Your task to perform on an android device: What is the recent news? Image 0: 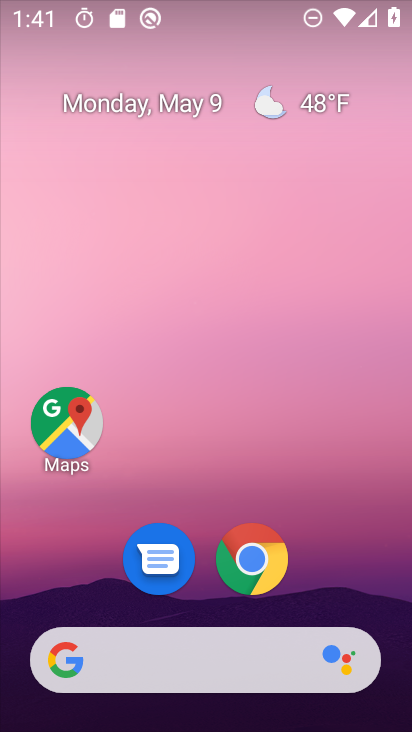
Step 0: click (404, 423)
Your task to perform on an android device: What is the recent news? Image 1: 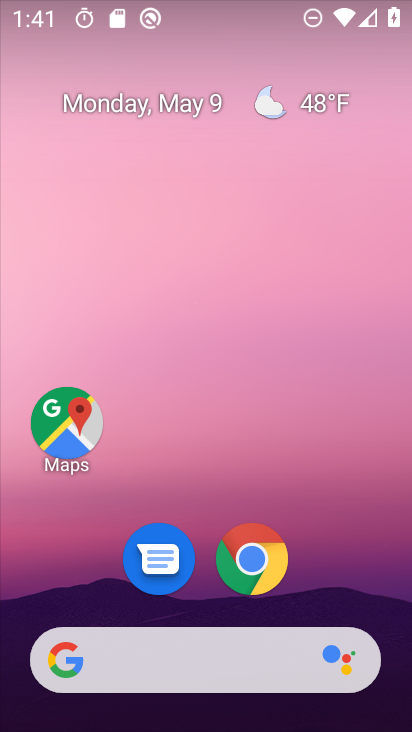
Step 1: drag from (197, 597) to (277, 135)
Your task to perform on an android device: What is the recent news? Image 2: 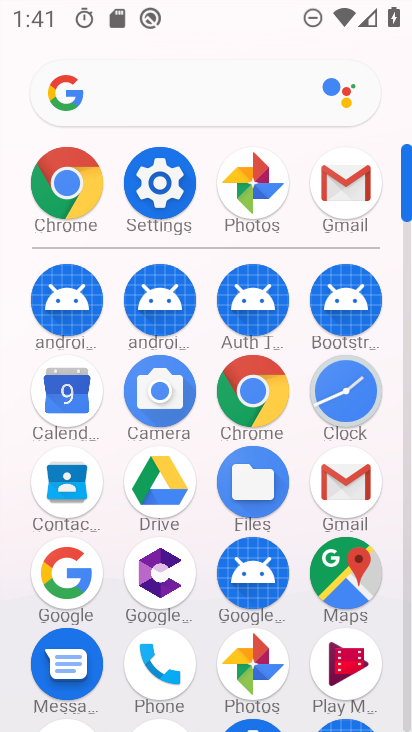
Step 2: click (196, 99)
Your task to perform on an android device: What is the recent news? Image 3: 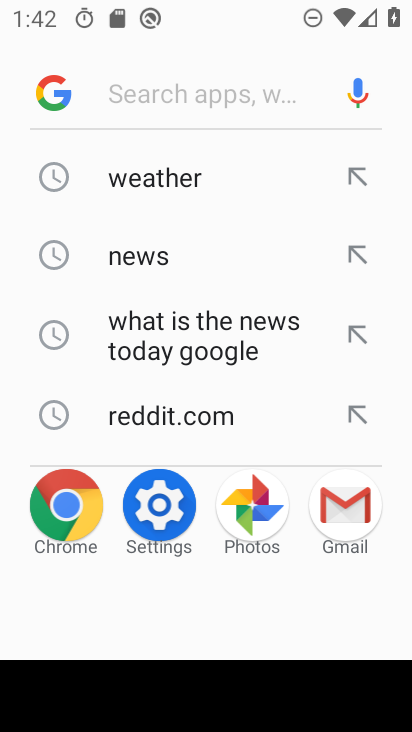
Step 3: type "recent news"
Your task to perform on an android device: What is the recent news? Image 4: 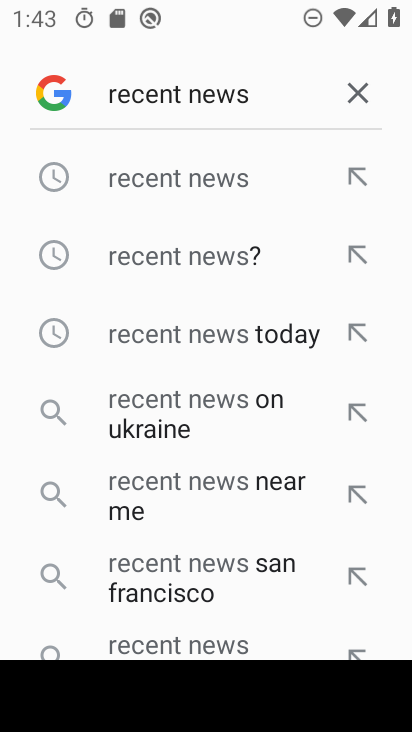
Step 4: click (231, 176)
Your task to perform on an android device: What is the recent news? Image 5: 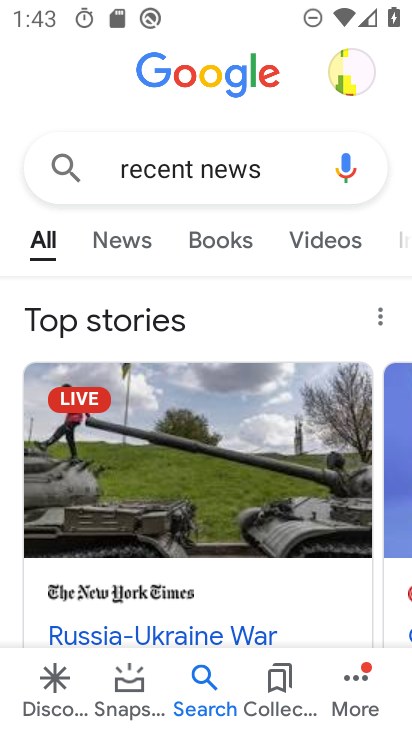
Step 5: task complete